Your task to perform on an android device: Add "usb-a" to the cart on newegg, then select checkout. Image 0: 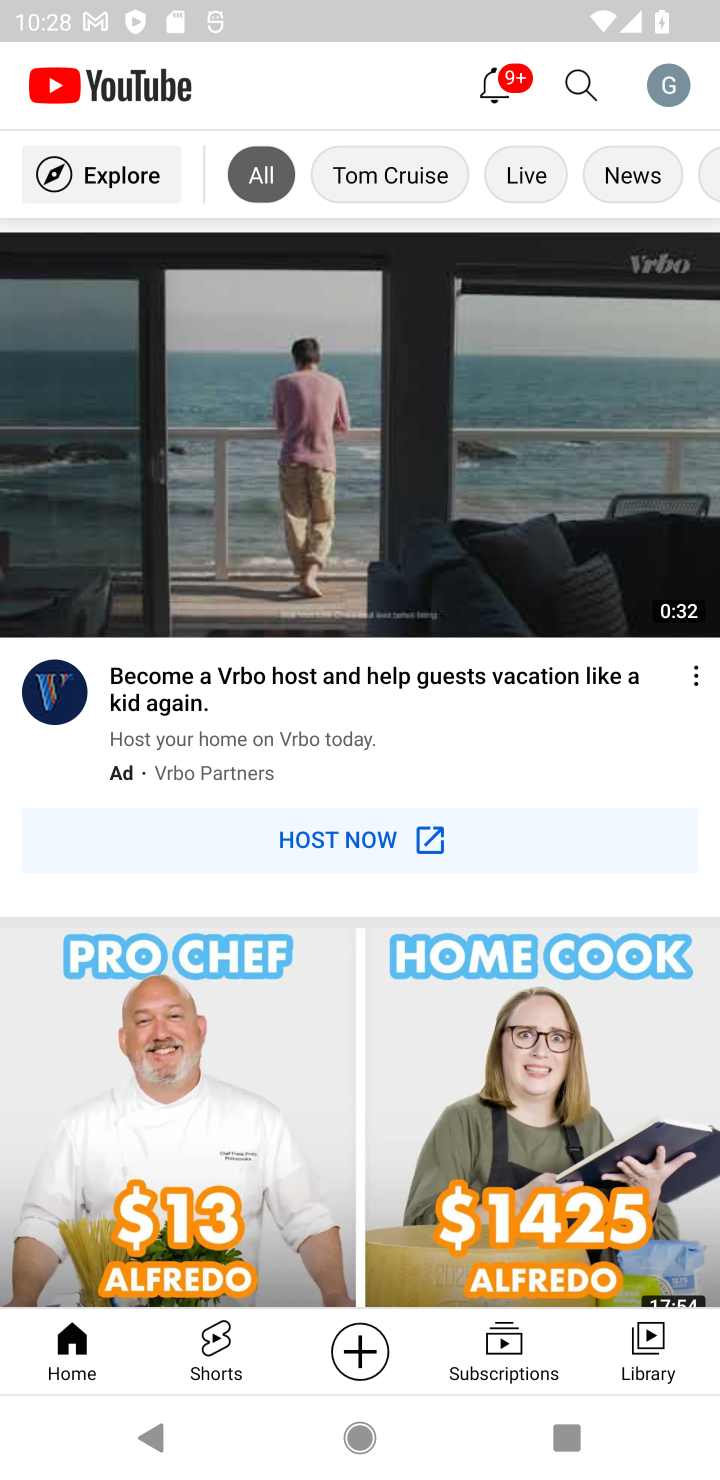
Step 0: press home button
Your task to perform on an android device: Add "usb-a" to the cart on newegg, then select checkout. Image 1: 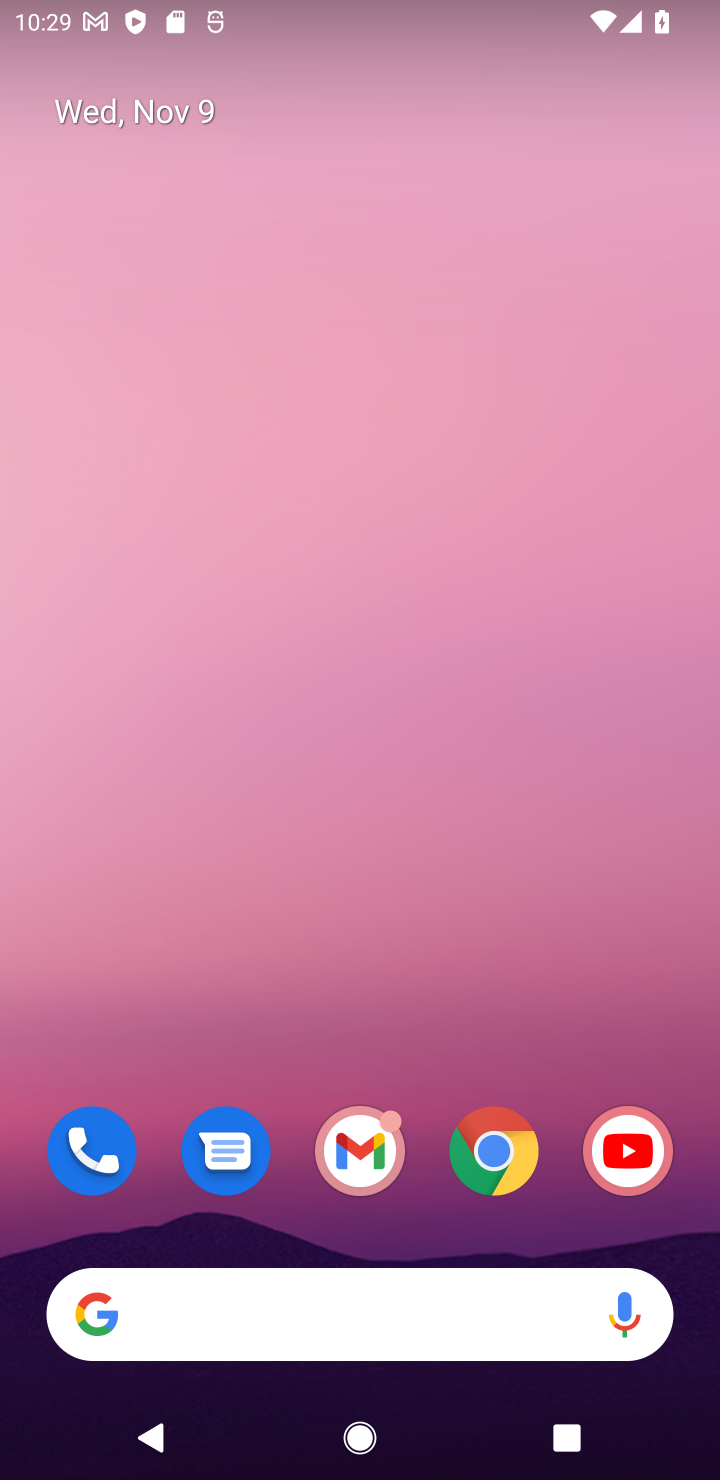
Step 1: click (490, 1162)
Your task to perform on an android device: Add "usb-a" to the cart on newegg, then select checkout. Image 2: 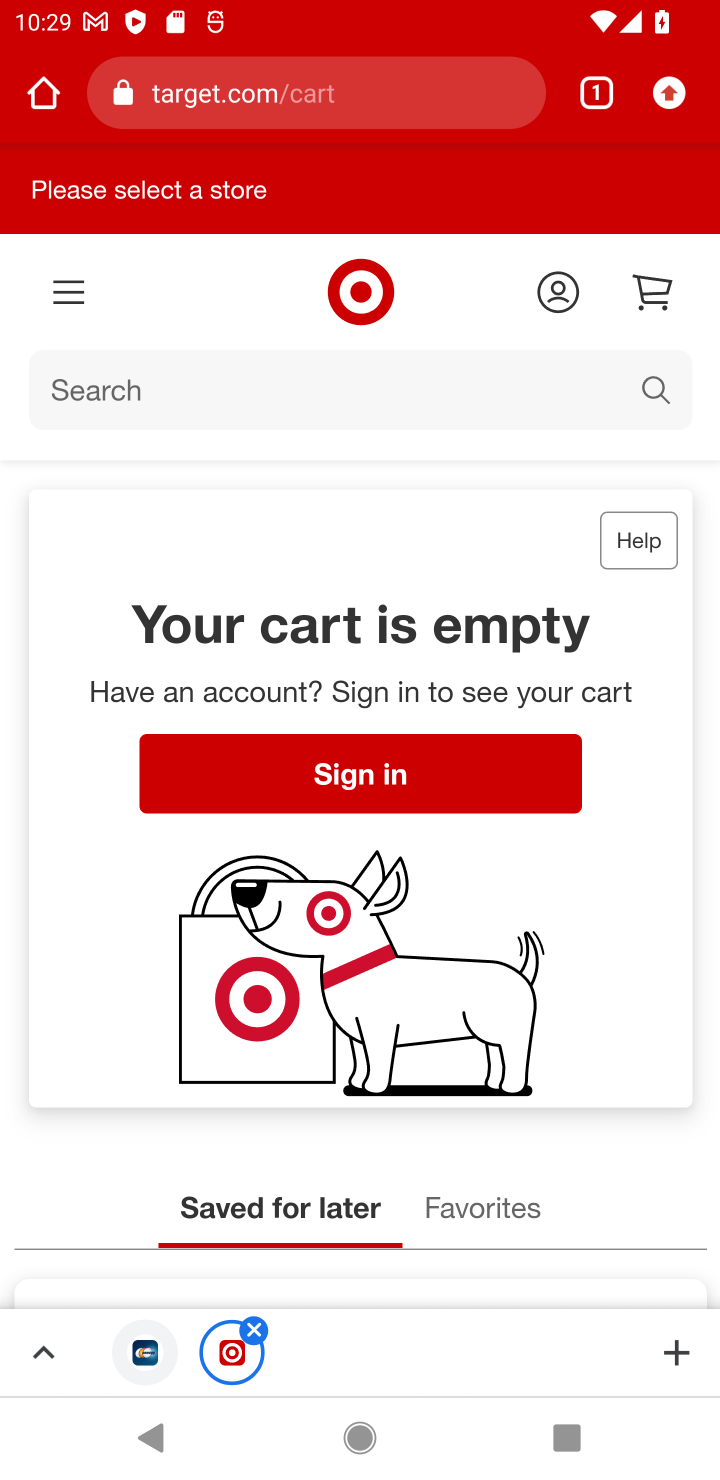
Step 2: click (332, 80)
Your task to perform on an android device: Add "usb-a" to the cart on newegg, then select checkout. Image 3: 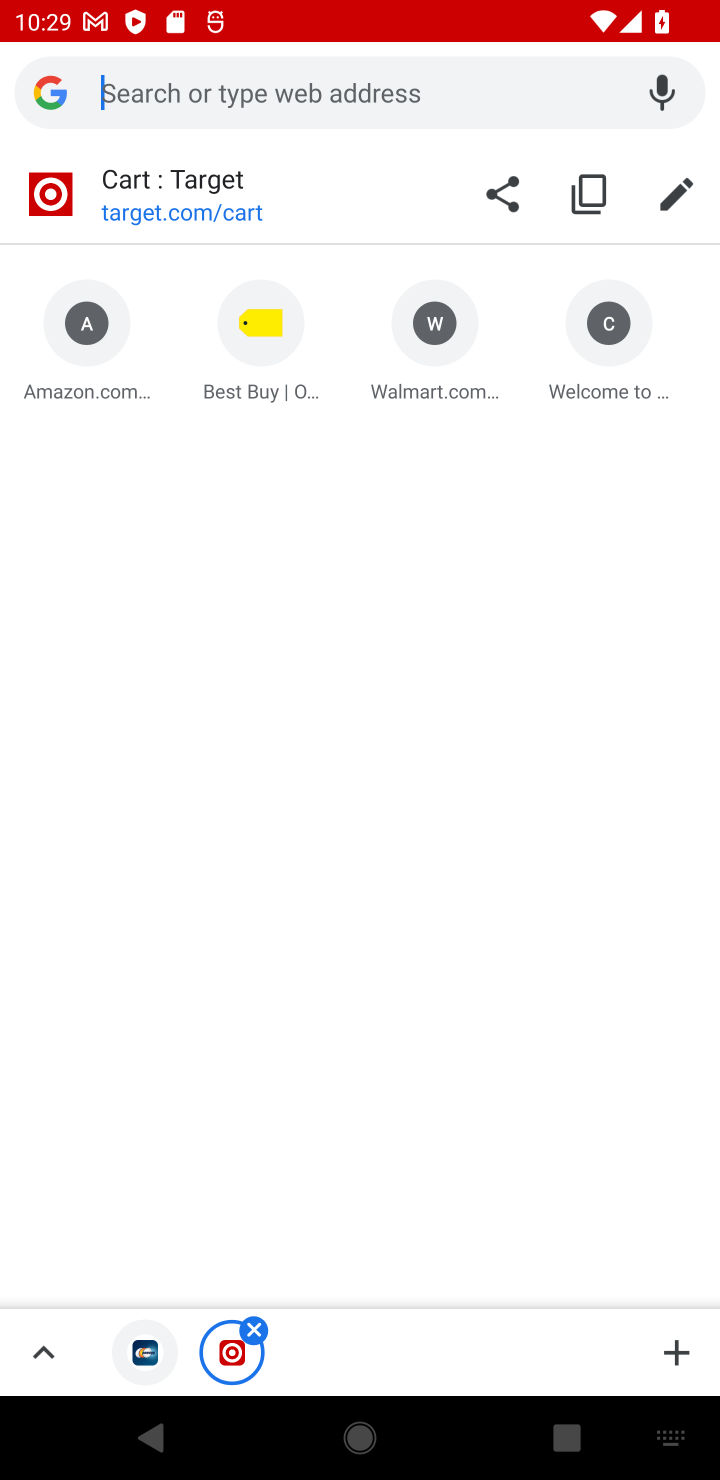
Step 3: type "newegg"
Your task to perform on an android device: Add "usb-a" to the cart on newegg, then select checkout. Image 4: 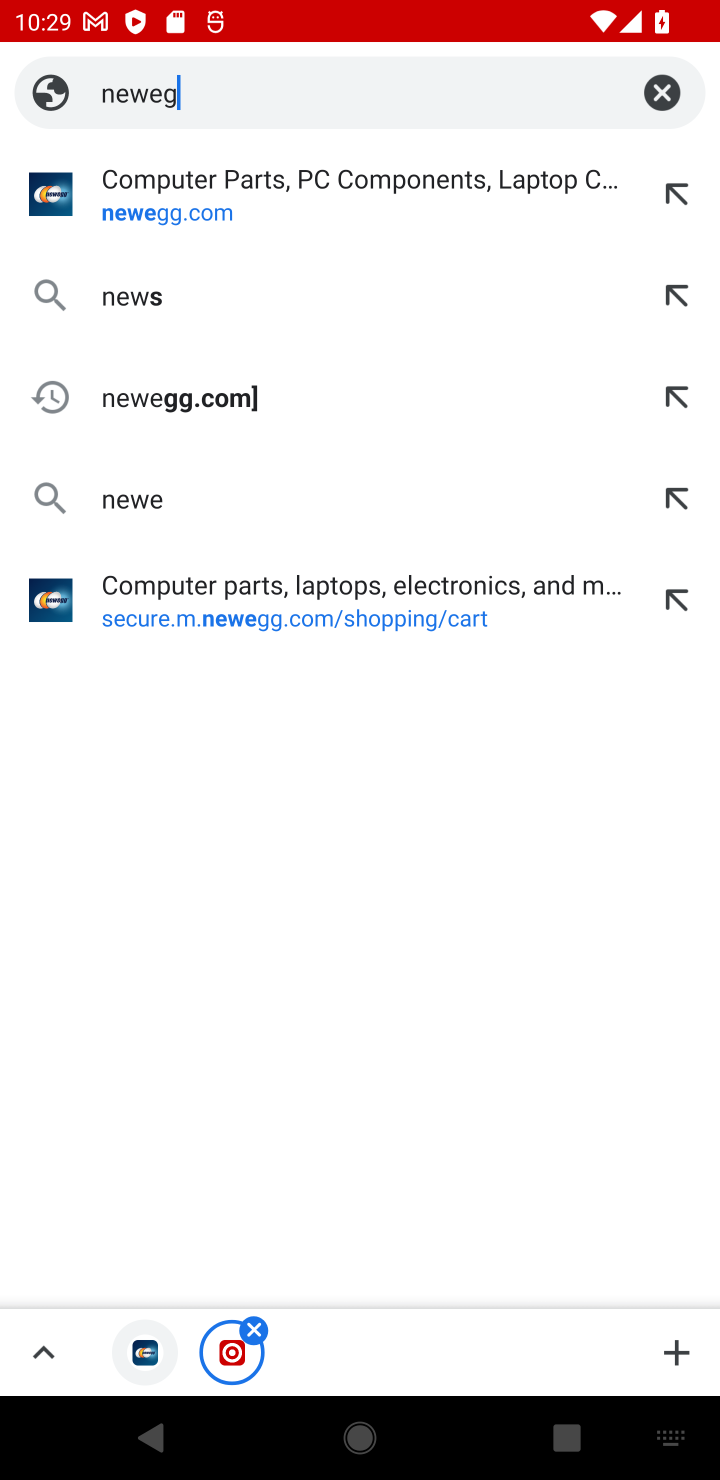
Step 4: press enter
Your task to perform on an android device: Add "usb-a" to the cart on newegg, then select checkout. Image 5: 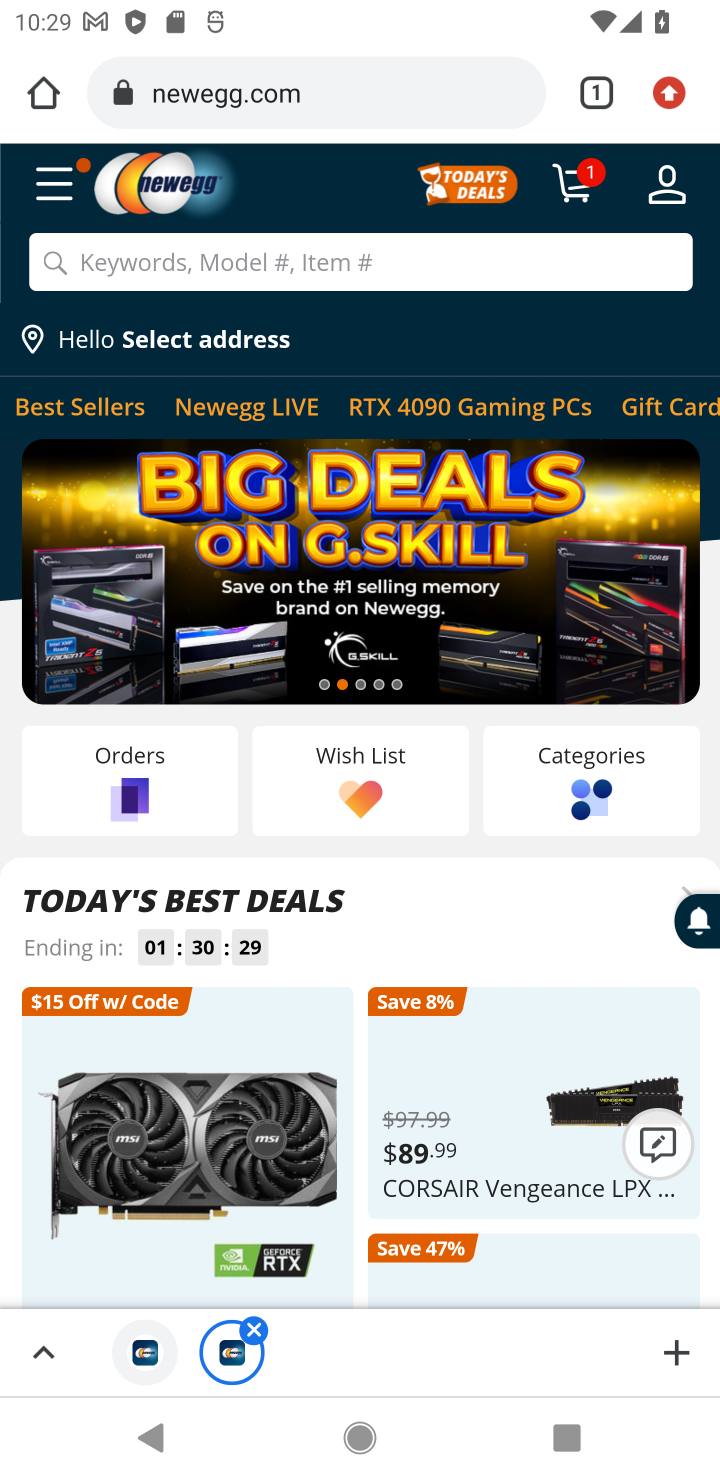
Step 5: click (222, 256)
Your task to perform on an android device: Add "usb-a" to the cart on newegg, then select checkout. Image 6: 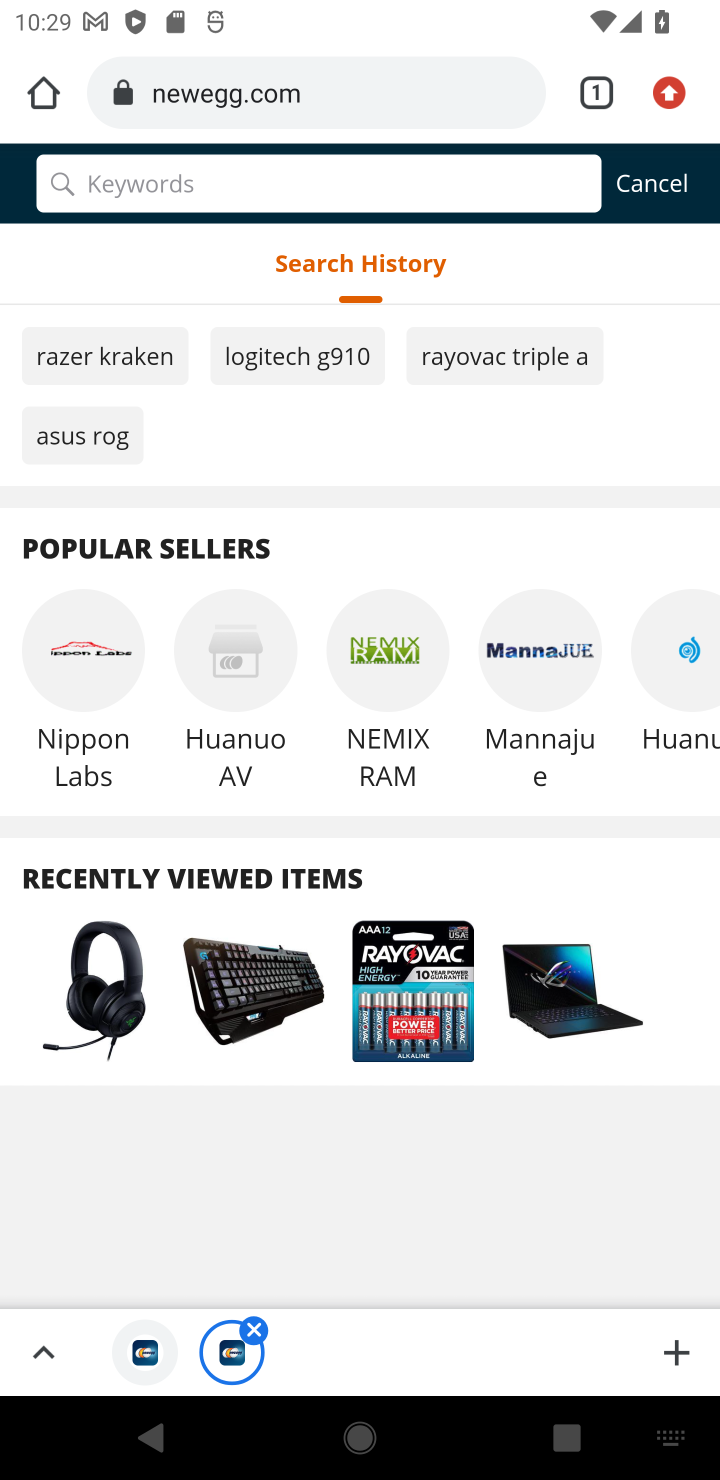
Step 6: type "usb-a"
Your task to perform on an android device: Add "usb-a" to the cart on newegg, then select checkout. Image 7: 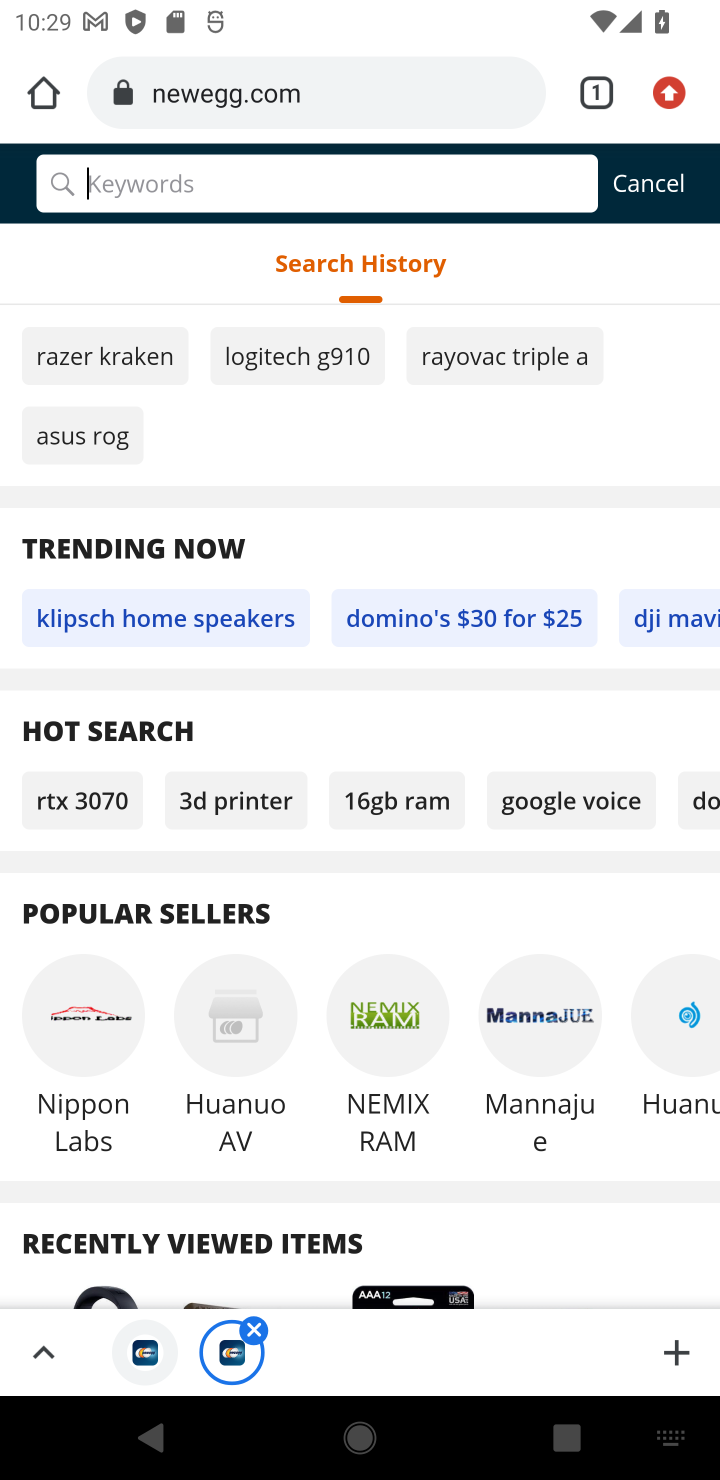
Step 7: press enter
Your task to perform on an android device: Add "usb-a" to the cart on newegg, then select checkout. Image 8: 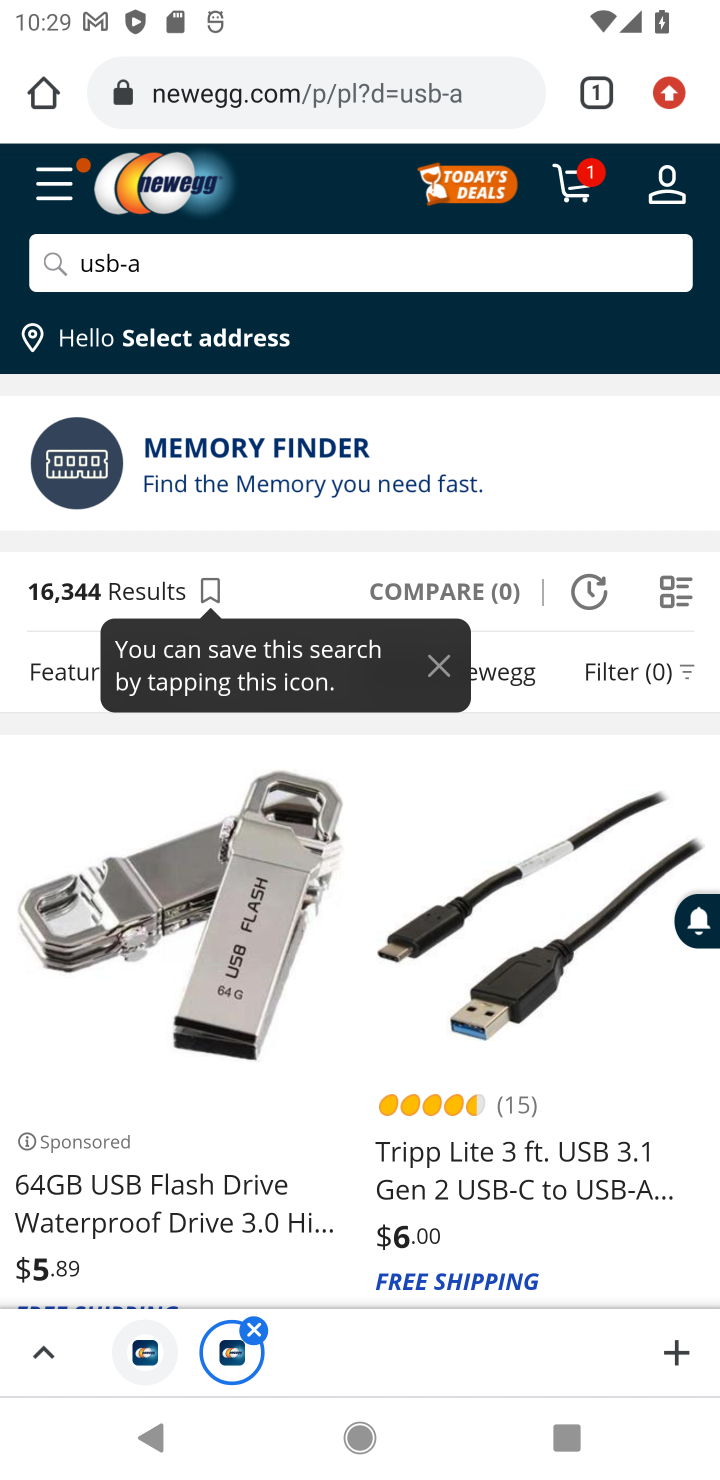
Step 8: drag from (570, 1213) to (687, 673)
Your task to perform on an android device: Add "usb-a" to the cart on newegg, then select checkout. Image 9: 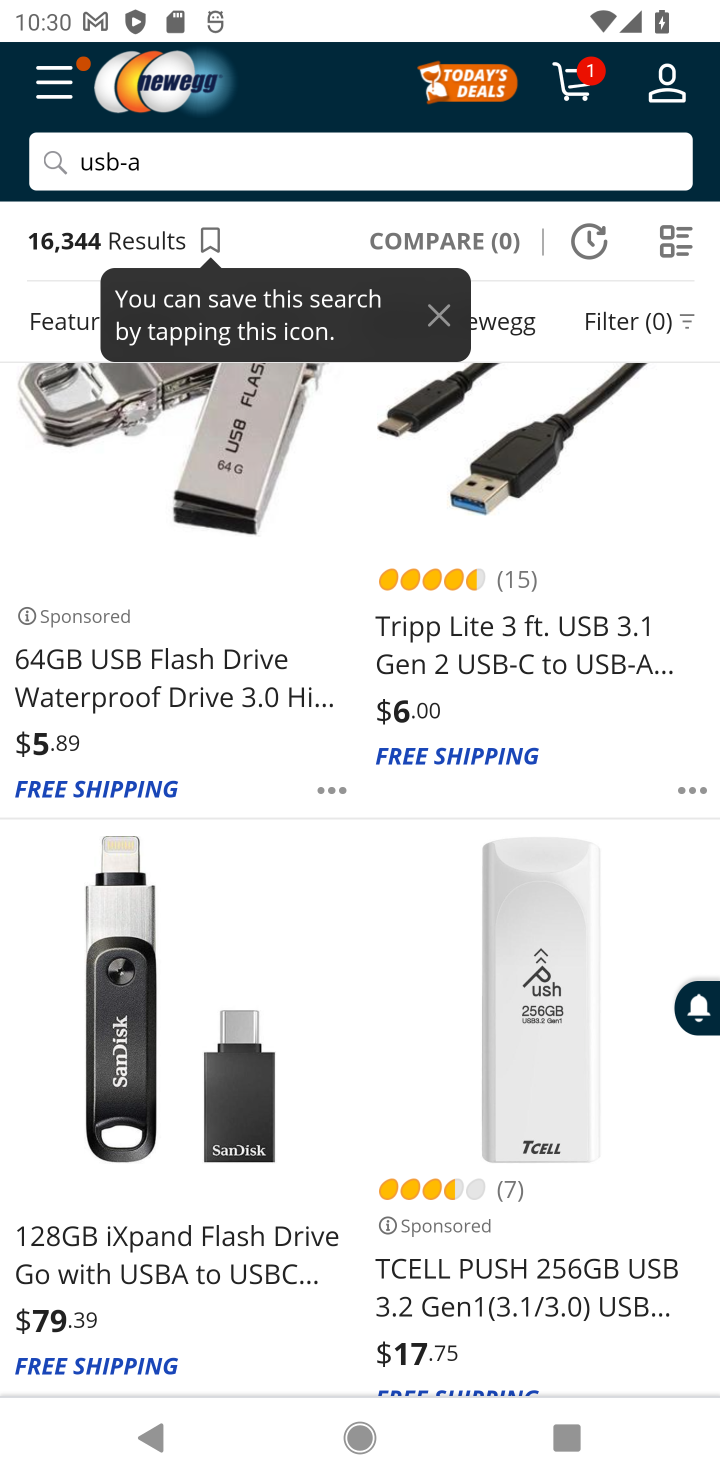
Step 9: drag from (566, 1003) to (616, 592)
Your task to perform on an android device: Add "usb-a" to the cart on newegg, then select checkout. Image 10: 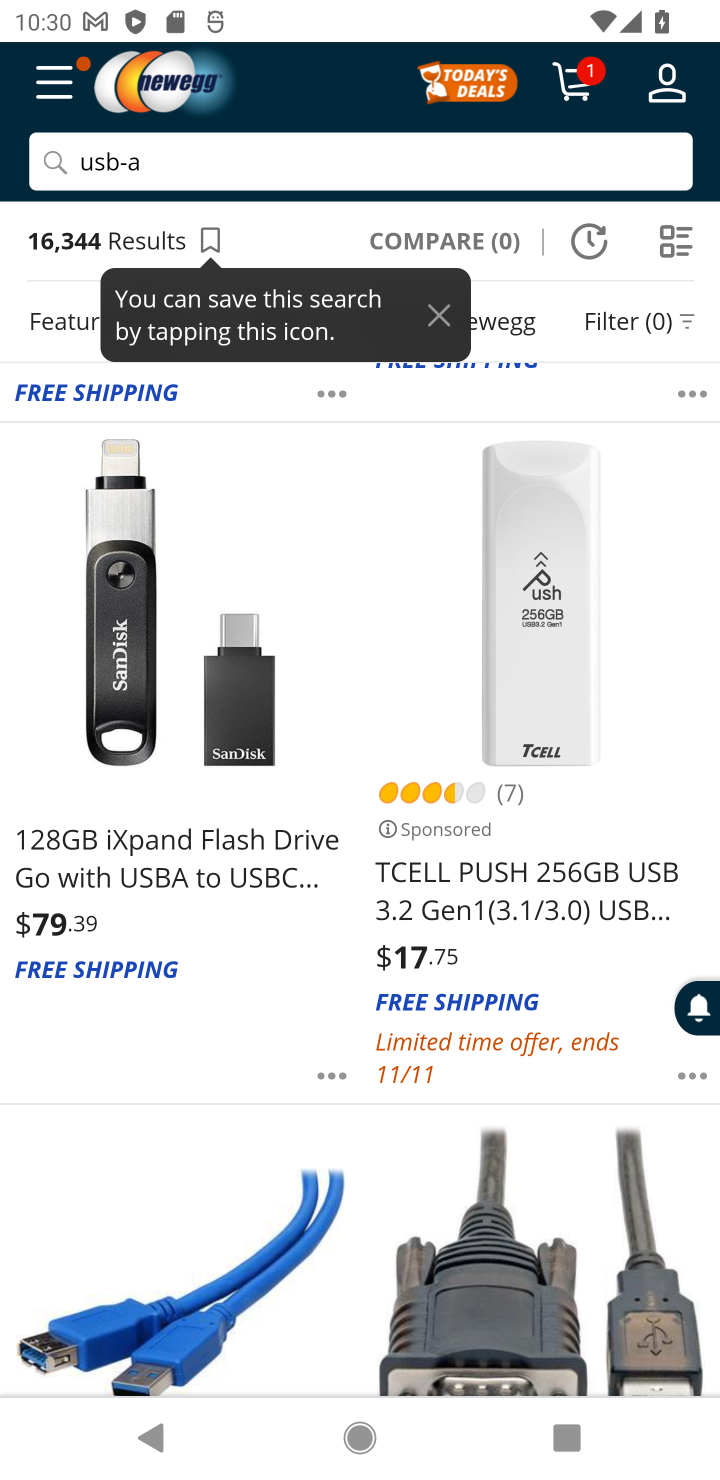
Step 10: drag from (463, 1043) to (531, 541)
Your task to perform on an android device: Add "usb-a" to the cart on newegg, then select checkout. Image 11: 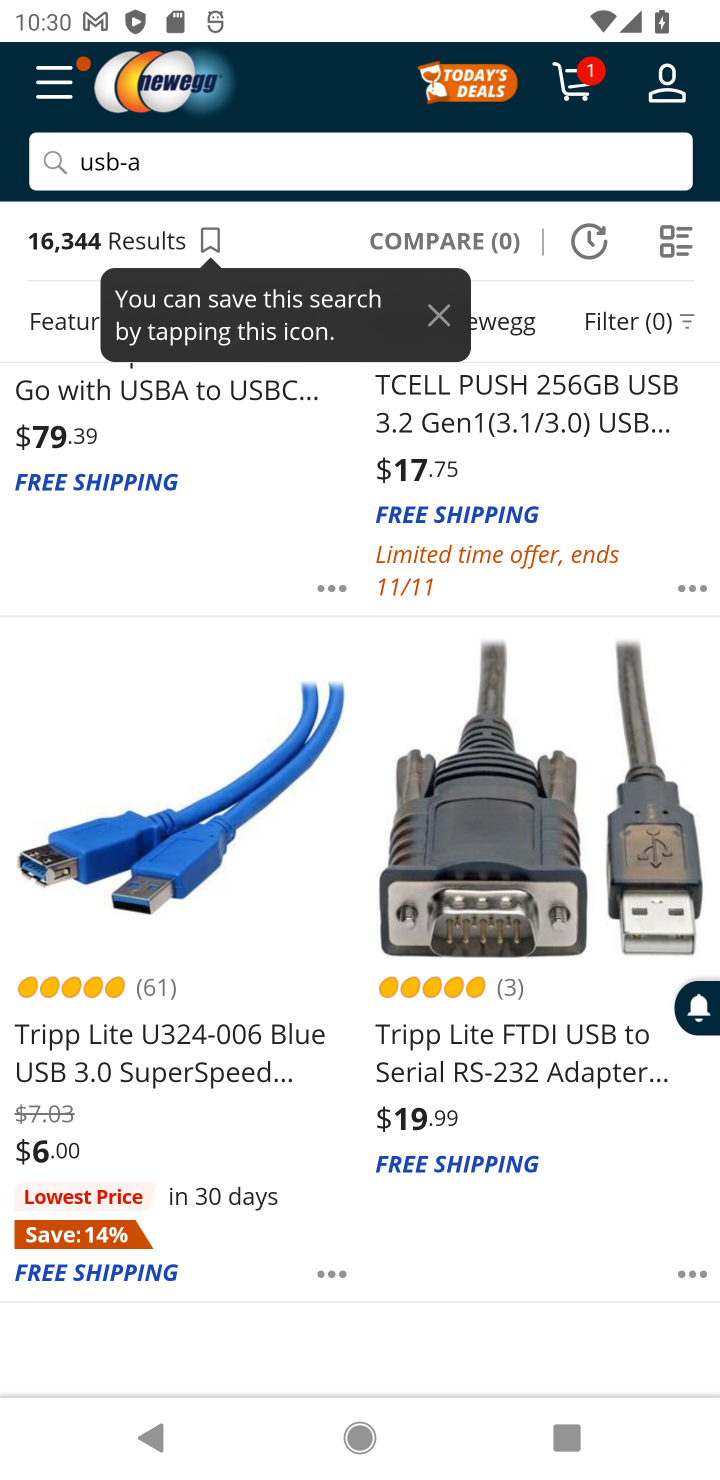
Step 11: drag from (563, 981) to (604, 526)
Your task to perform on an android device: Add "usb-a" to the cart on newegg, then select checkout. Image 12: 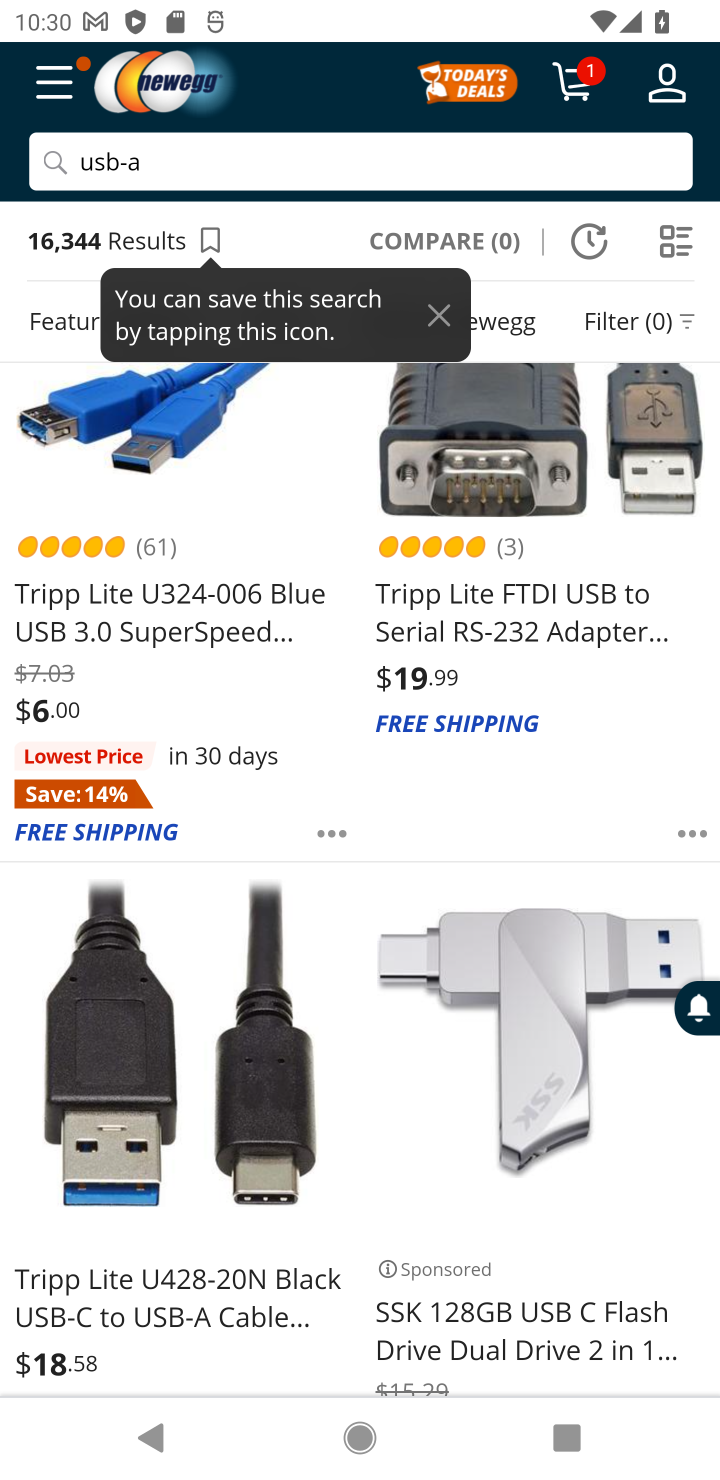
Step 12: drag from (391, 812) to (468, 355)
Your task to perform on an android device: Add "usb-a" to the cart on newegg, then select checkout. Image 13: 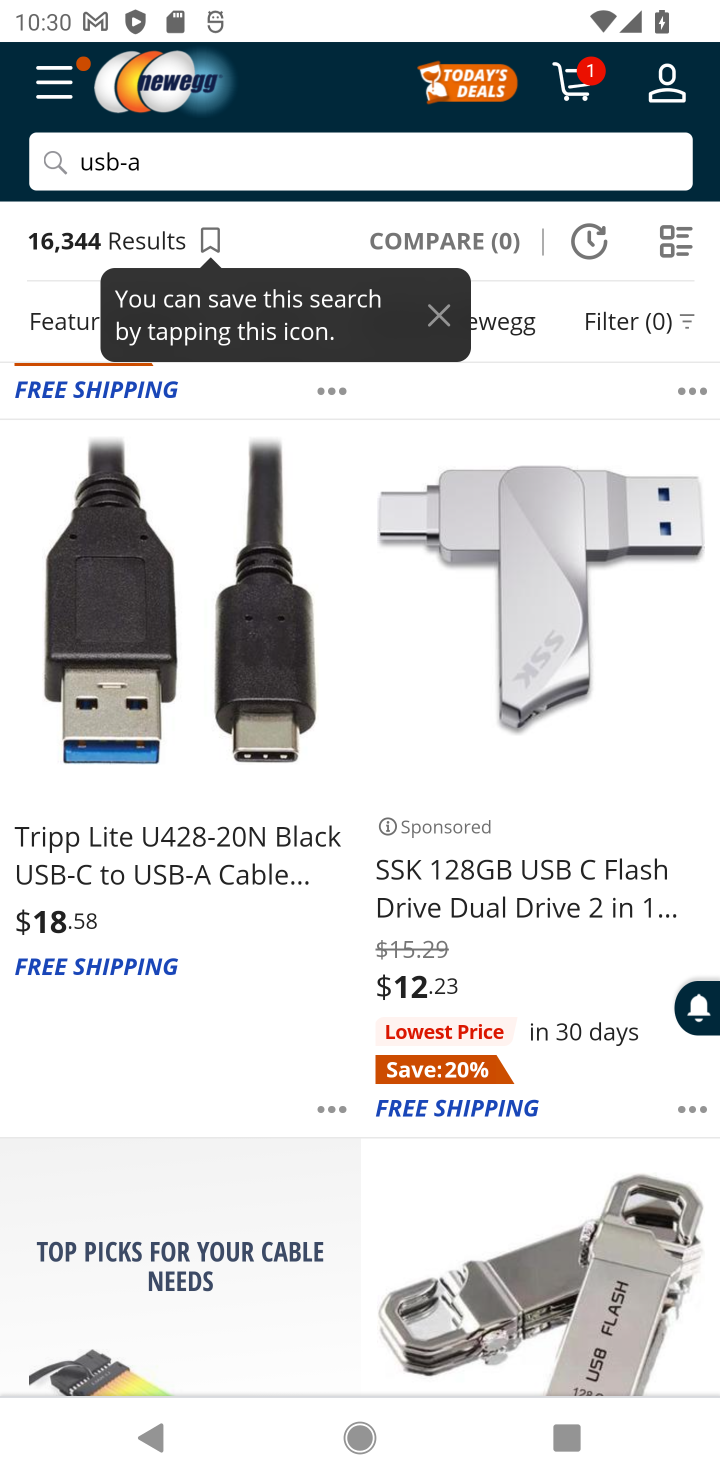
Step 13: drag from (504, 1027) to (508, 387)
Your task to perform on an android device: Add "usb-a" to the cart on newegg, then select checkout. Image 14: 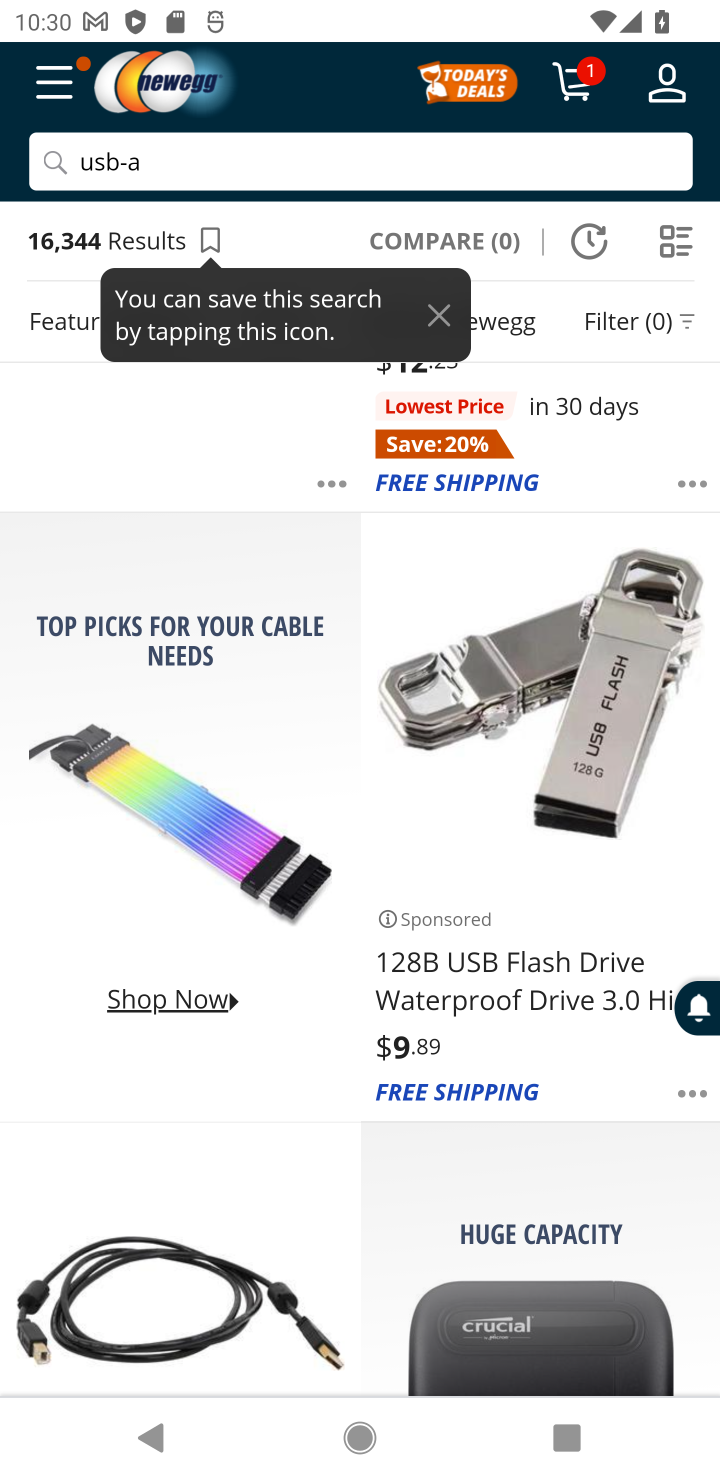
Step 14: drag from (488, 1007) to (484, 576)
Your task to perform on an android device: Add "usb-a" to the cart on newegg, then select checkout. Image 15: 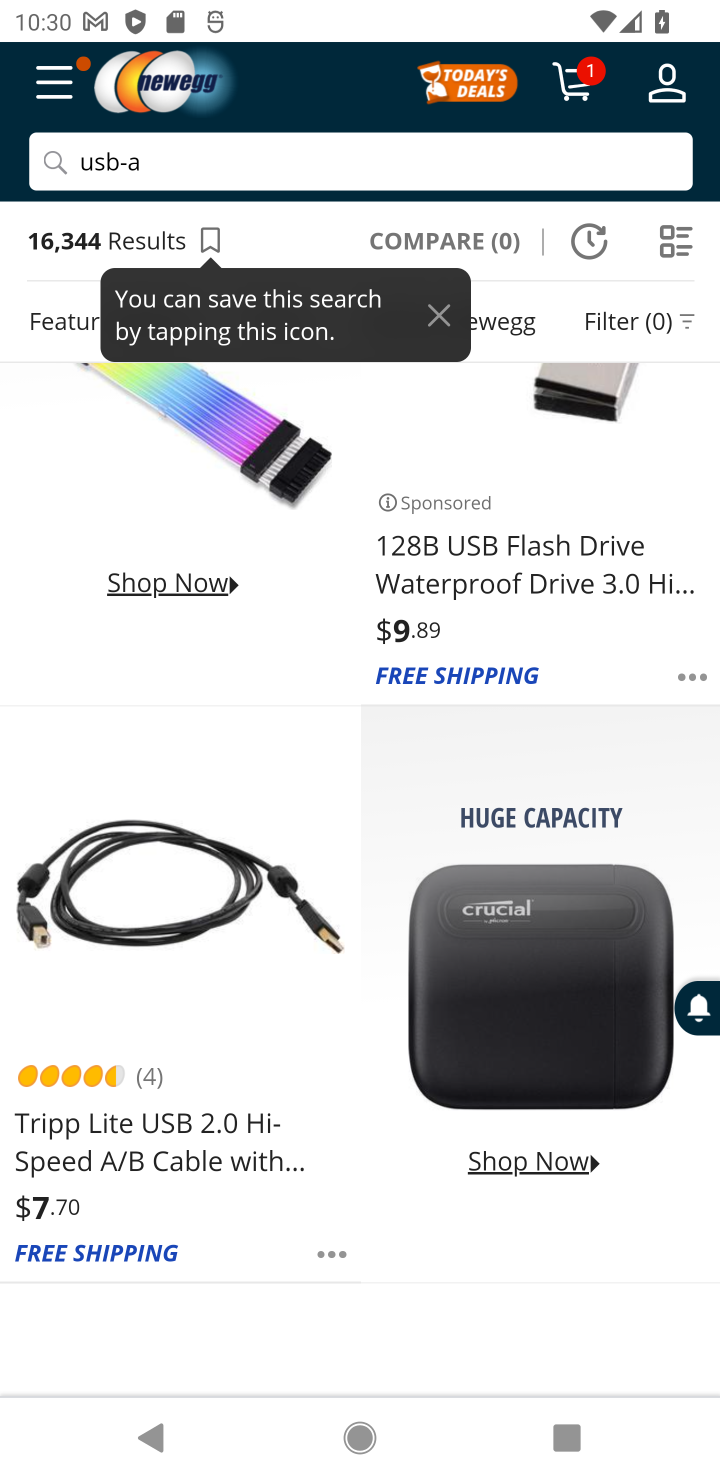
Step 15: drag from (553, 556) to (615, 1318)
Your task to perform on an android device: Add "usb-a" to the cart on newegg, then select checkout. Image 16: 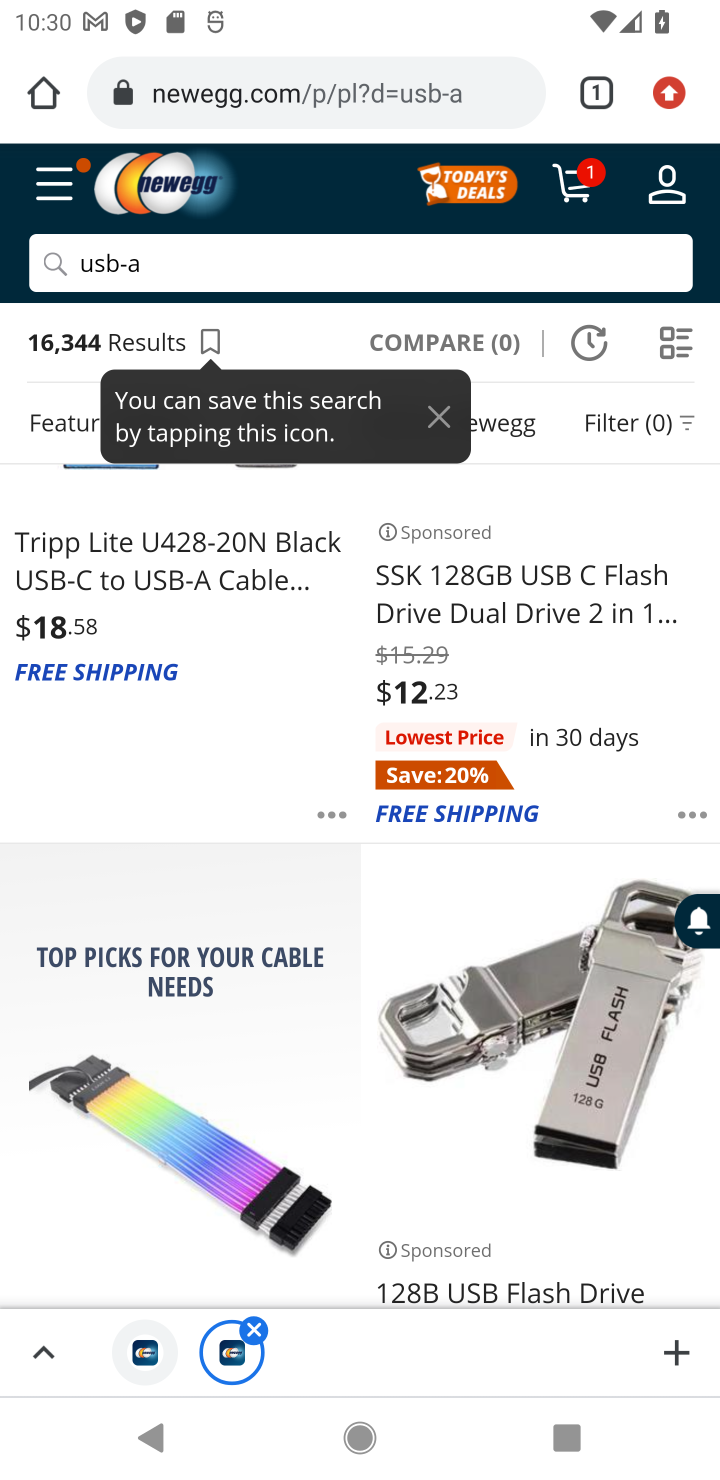
Step 16: drag from (607, 514) to (649, 1156)
Your task to perform on an android device: Add "usb-a" to the cart on newegg, then select checkout. Image 17: 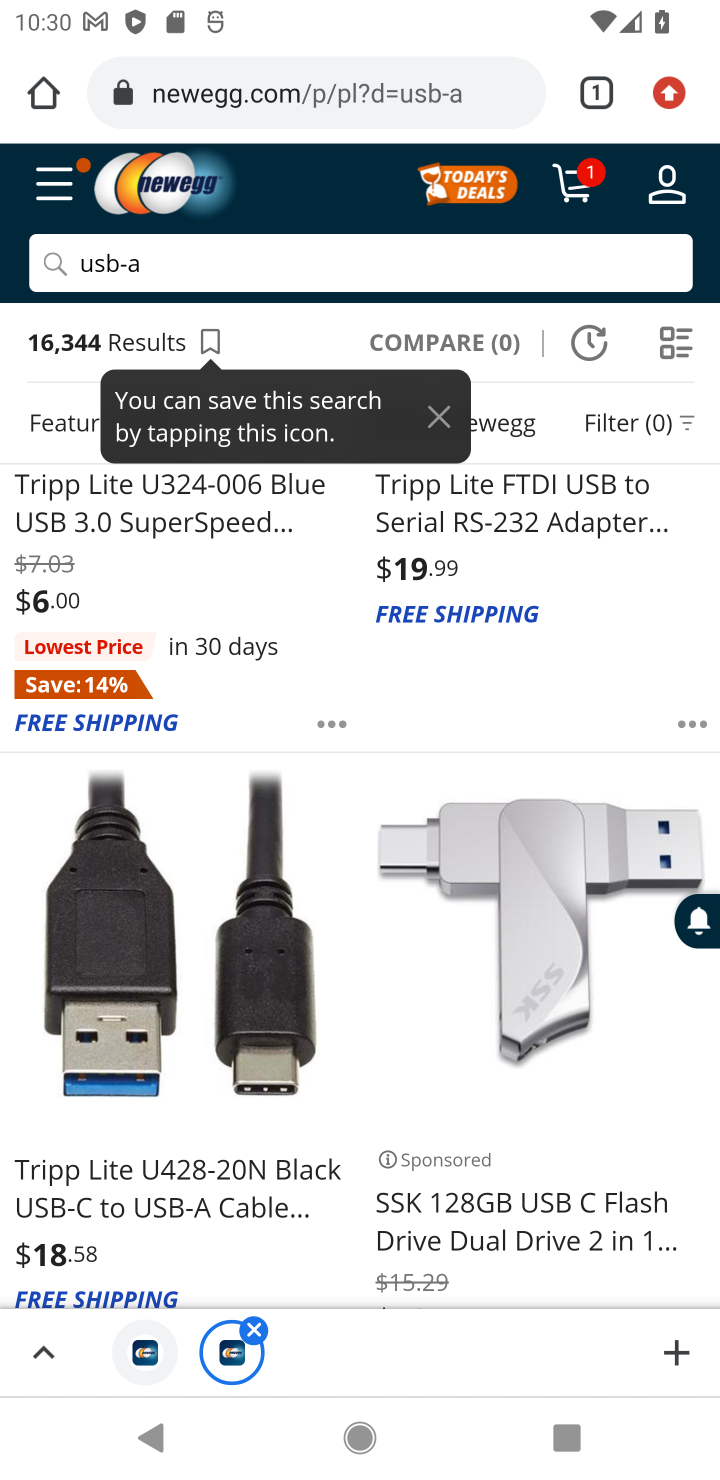
Step 17: drag from (543, 482) to (497, 1048)
Your task to perform on an android device: Add "usb-a" to the cart on newegg, then select checkout. Image 18: 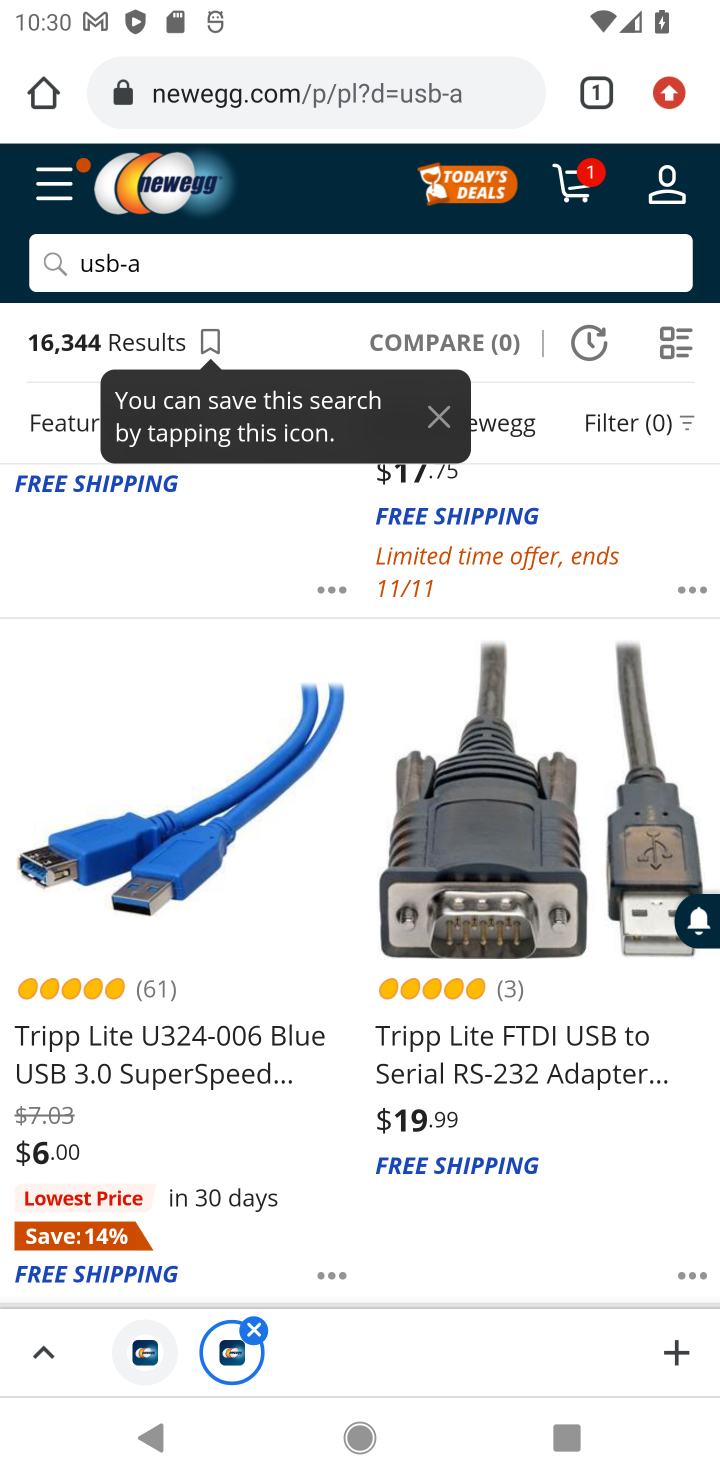
Step 18: drag from (504, 632) to (489, 1215)
Your task to perform on an android device: Add "usb-a" to the cart on newegg, then select checkout. Image 19: 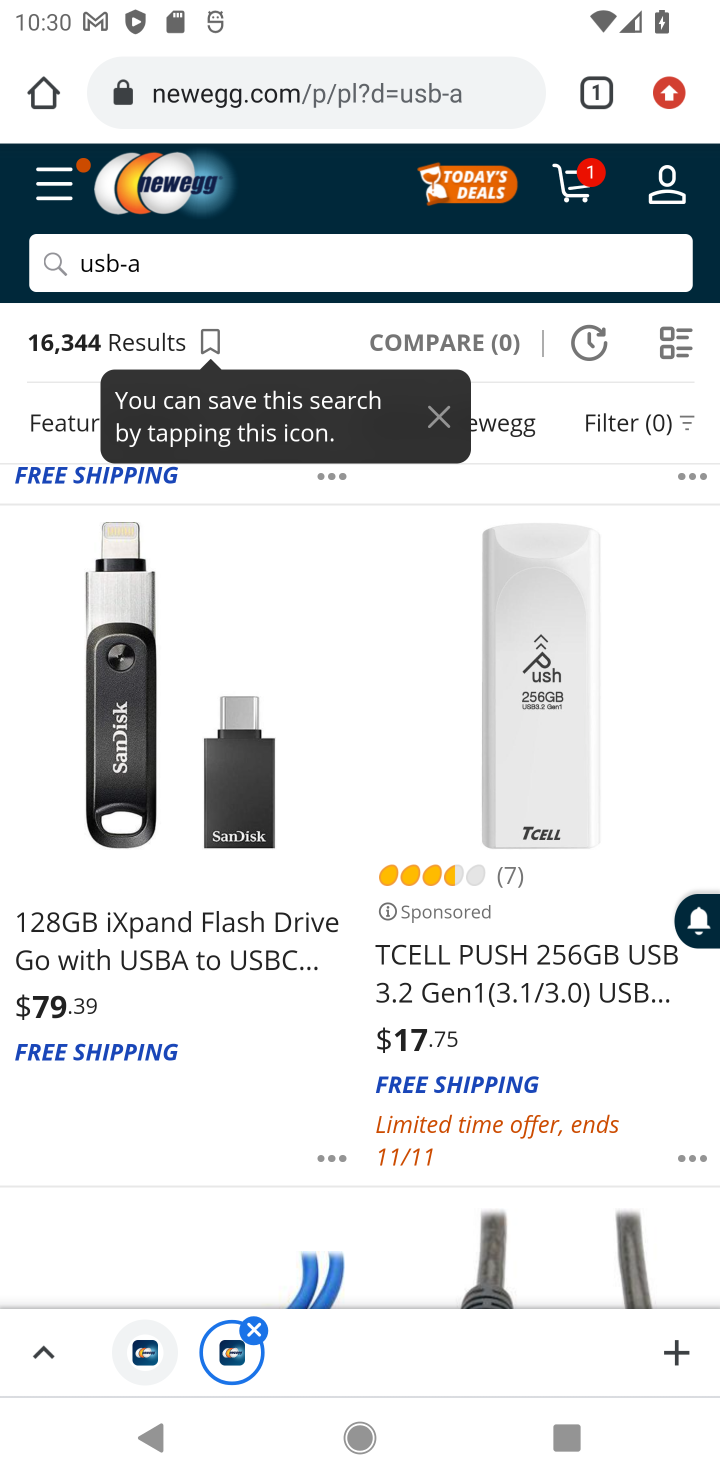
Step 19: click (155, 677)
Your task to perform on an android device: Add "usb-a" to the cart on newegg, then select checkout. Image 20: 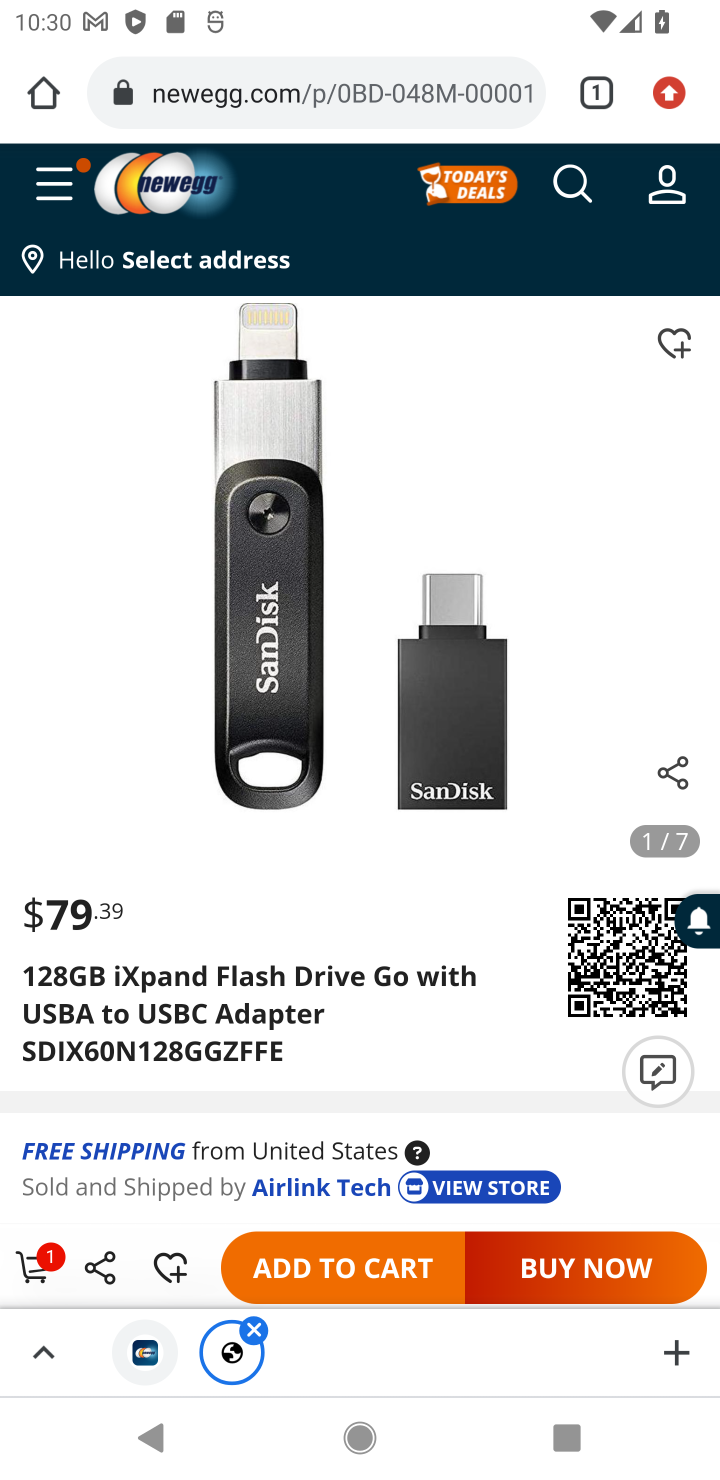
Step 20: click (381, 1250)
Your task to perform on an android device: Add "usb-a" to the cart on newegg, then select checkout. Image 21: 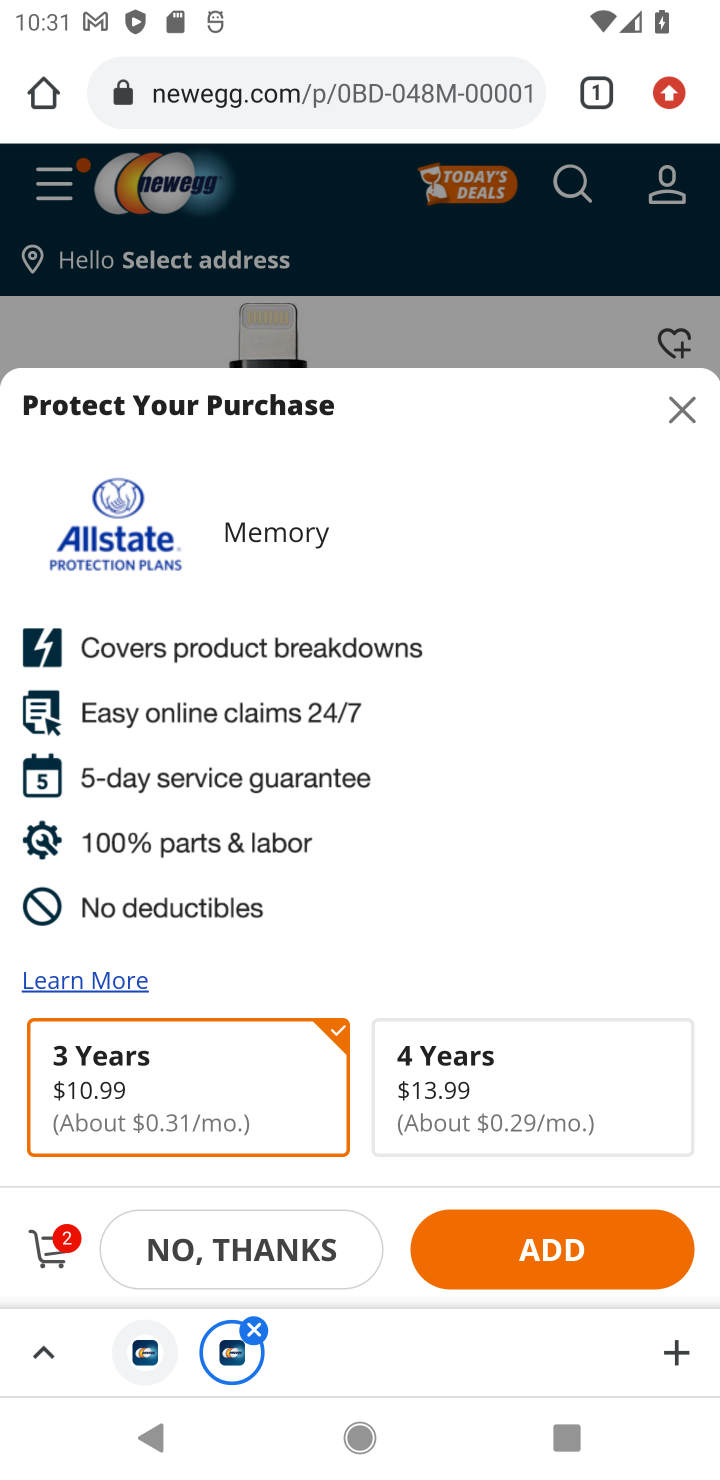
Step 21: click (49, 1245)
Your task to perform on an android device: Add "usb-a" to the cart on newegg, then select checkout. Image 22: 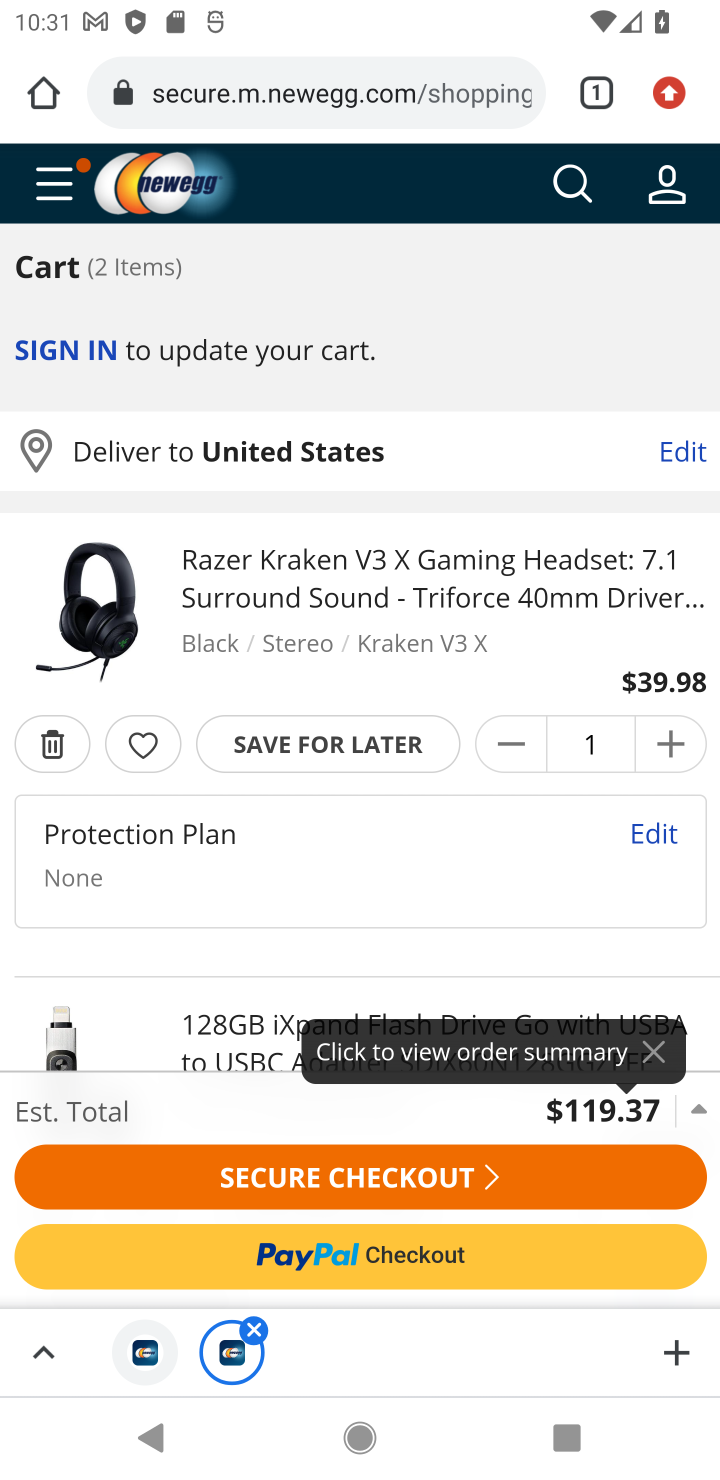
Step 22: click (380, 1176)
Your task to perform on an android device: Add "usb-a" to the cart on newegg, then select checkout. Image 23: 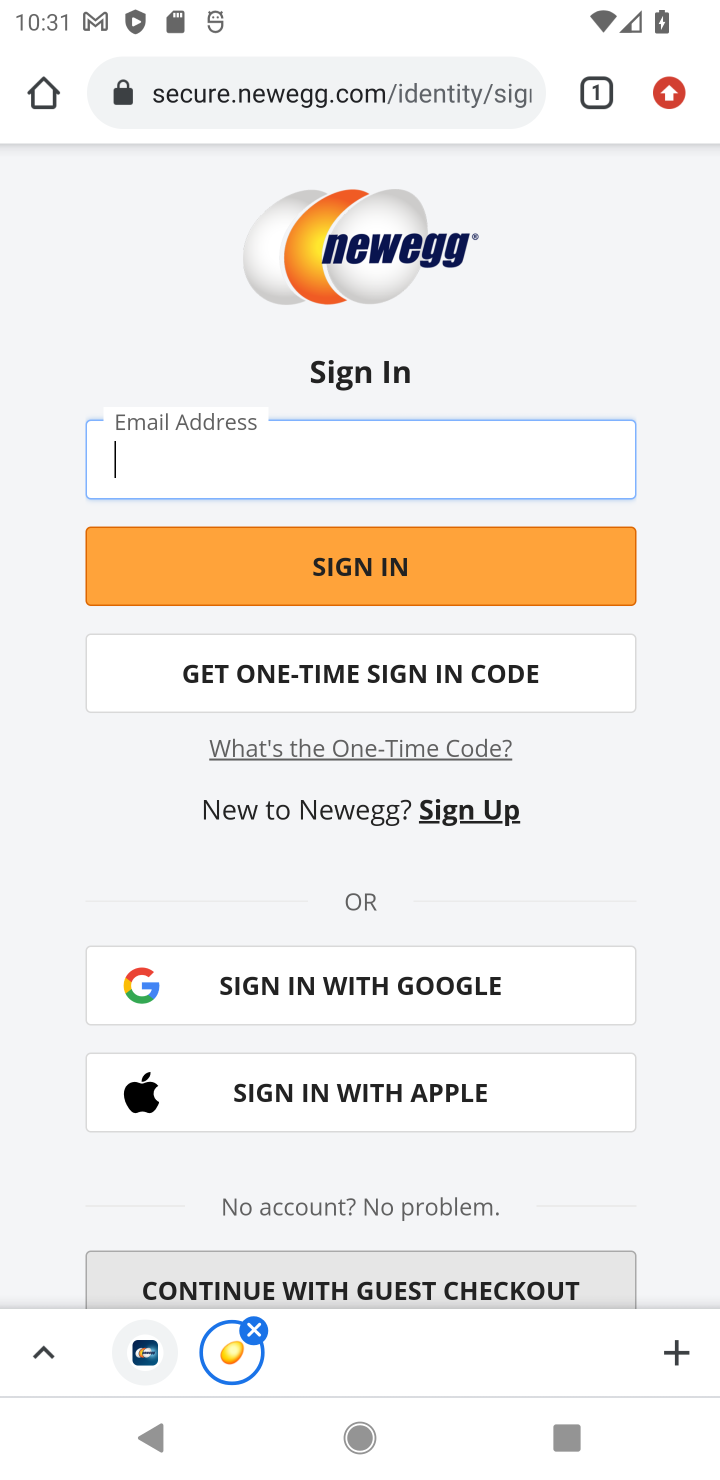
Step 23: task complete